Your task to perform on an android device: Show me popular games on the Play Store Image 0: 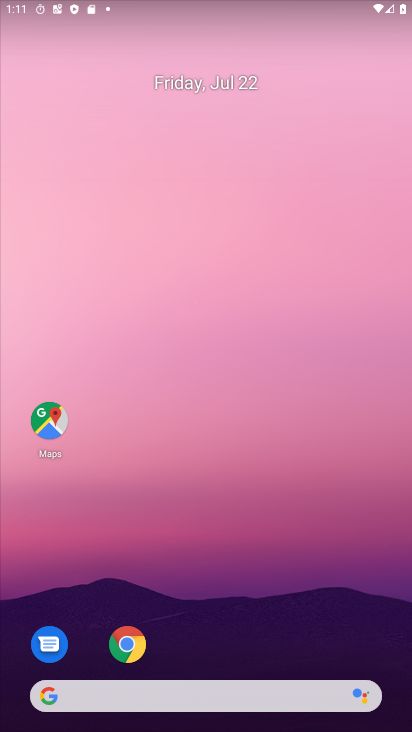
Step 0: drag from (240, 596) to (298, 157)
Your task to perform on an android device: Show me popular games on the Play Store Image 1: 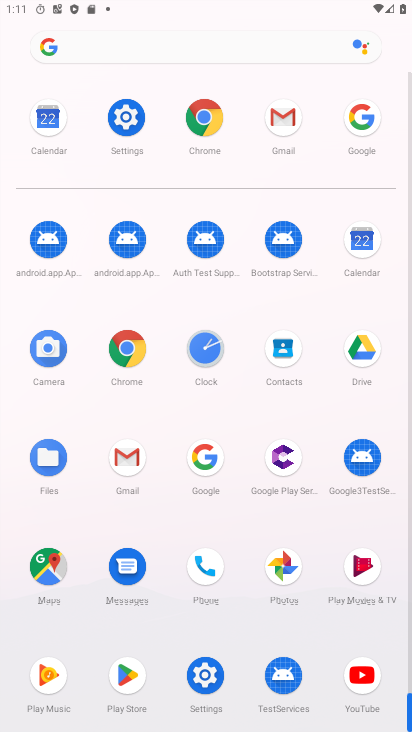
Step 1: click (127, 673)
Your task to perform on an android device: Show me popular games on the Play Store Image 2: 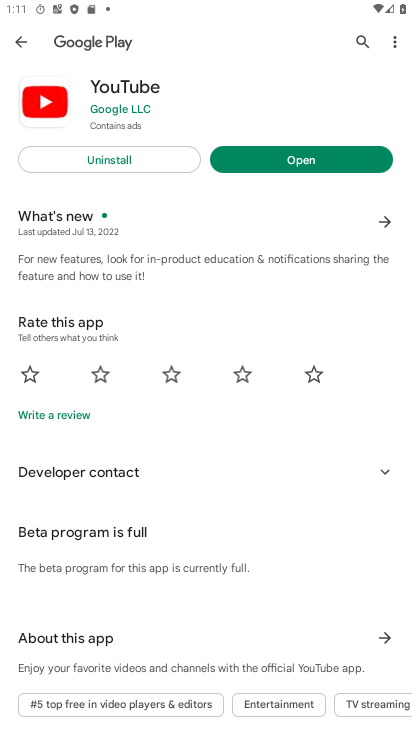
Step 2: click (25, 43)
Your task to perform on an android device: Show me popular games on the Play Store Image 3: 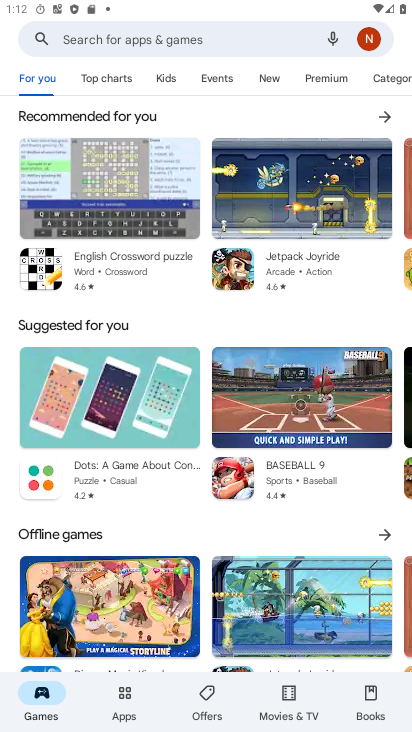
Step 3: task complete